Your task to perform on an android device: Empty the shopping cart on walmart.com. Add asus rog to the cart on walmart.com, then select checkout. Image 0: 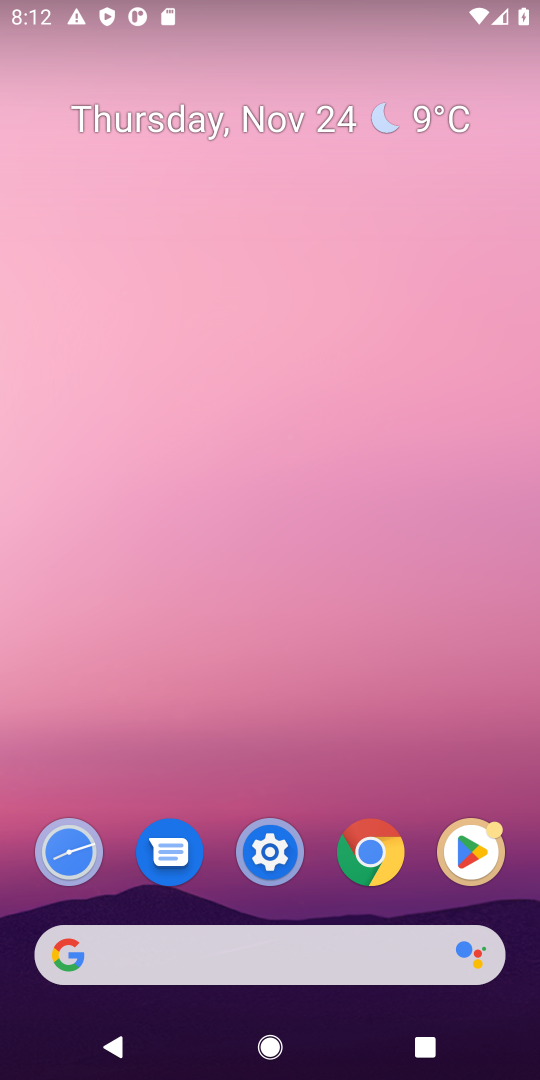
Step 0: click (227, 949)
Your task to perform on an android device: Empty the shopping cart on walmart.com. Add asus rog to the cart on walmart.com, then select checkout. Image 1: 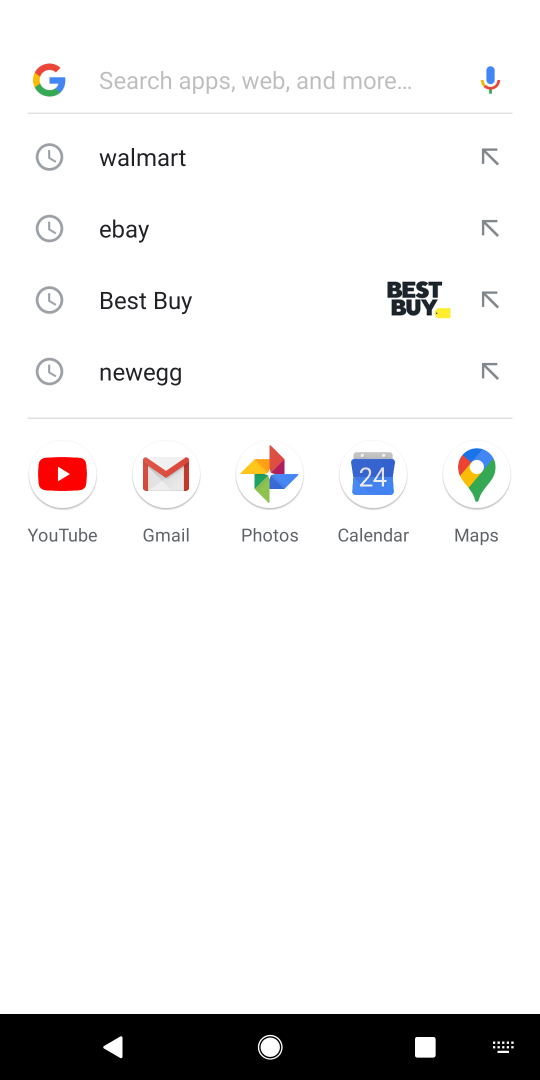
Step 1: click (181, 153)
Your task to perform on an android device: Empty the shopping cart on walmart.com. Add asus rog to the cart on walmart.com, then select checkout. Image 2: 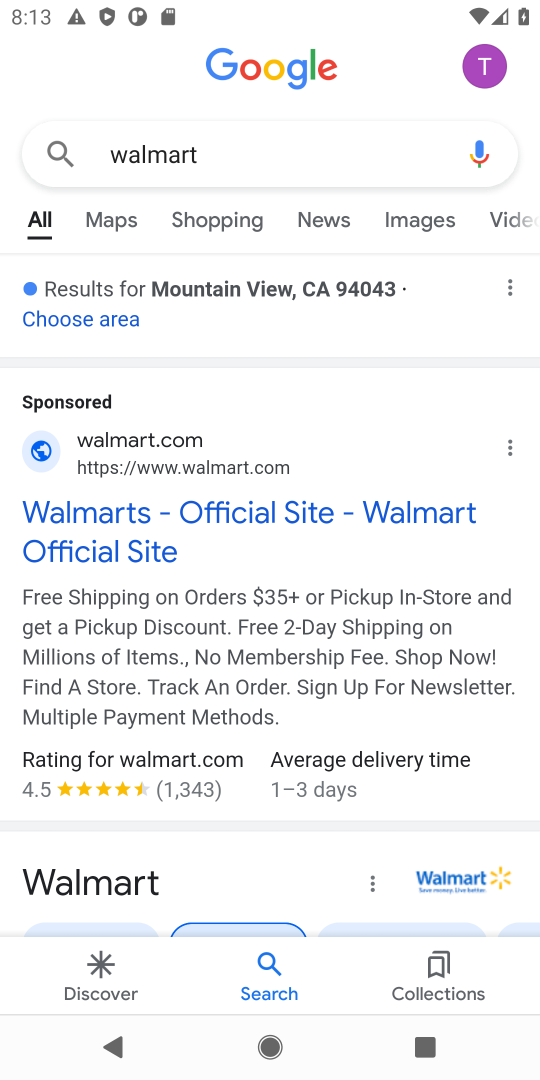
Step 2: click (137, 442)
Your task to perform on an android device: Empty the shopping cart on walmart.com. Add asus rog to the cart on walmart.com, then select checkout. Image 3: 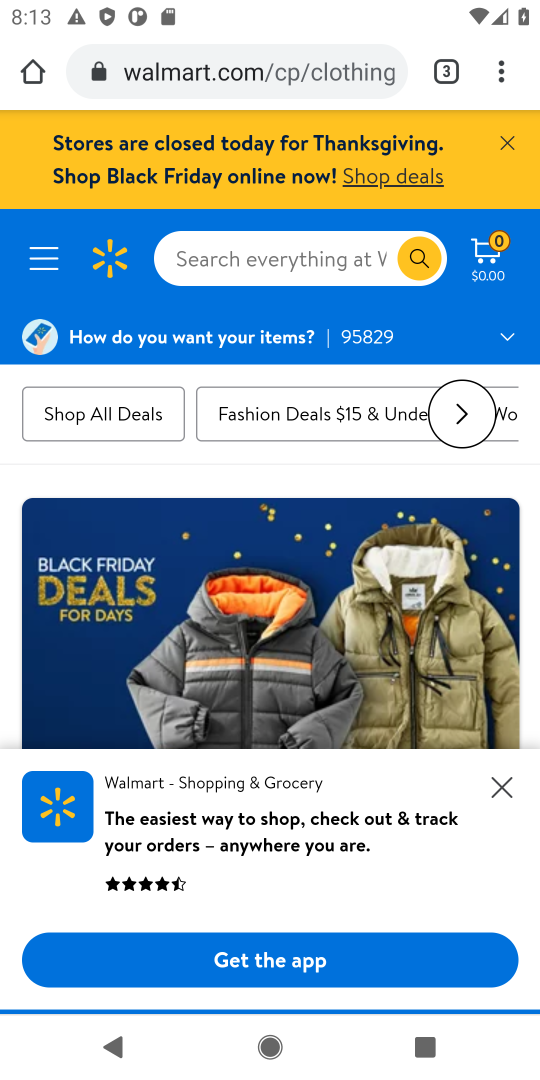
Step 3: click (493, 249)
Your task to perform on an android device: Empty the shopping cart on walmart.com. Add asus rog to the cart on walmart.com, then select checkout. Image 4: 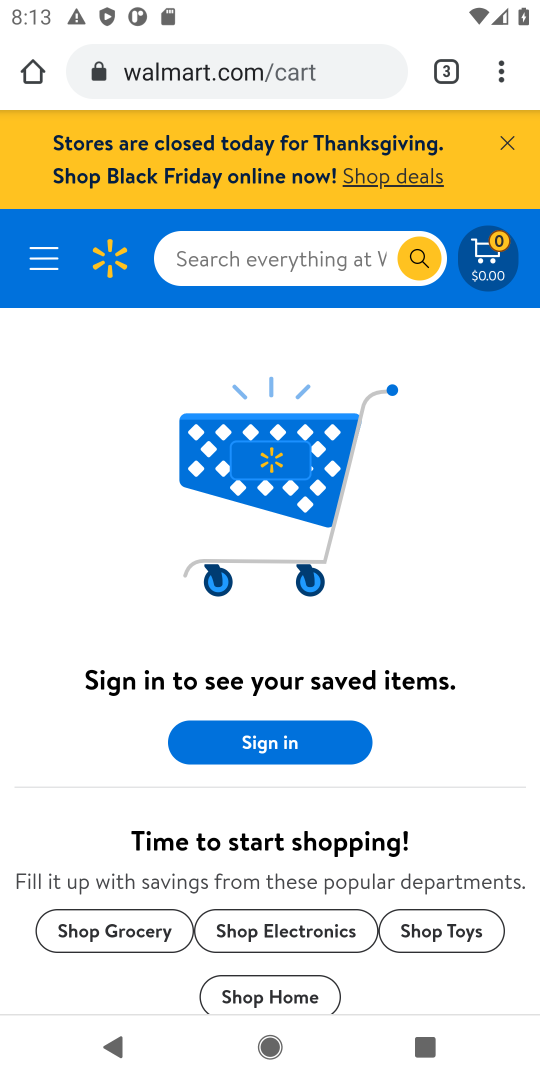
Step 4: click (296, 260)
Your task to perform on an android device: Empty the shopping cart on walmart.com. Add asus rog to the cart on walmart.com, then select checkout. Image 5: 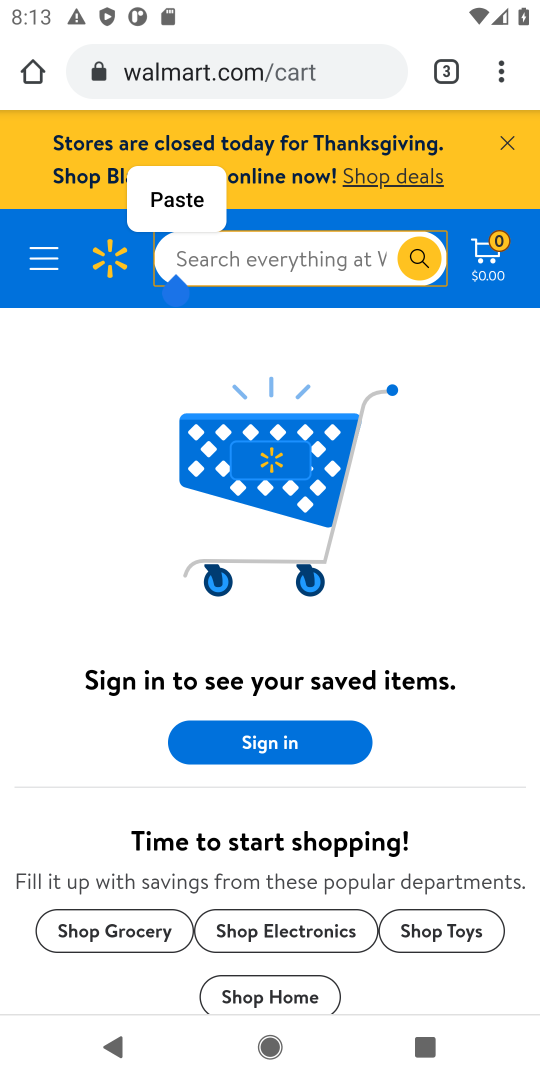
Step 5: type "asus rog"
Your task to perform on an android device: Empty the shopping cart on walmart.com. Add asus rog to the cart on walmart.com, then select checkout. Image 6: 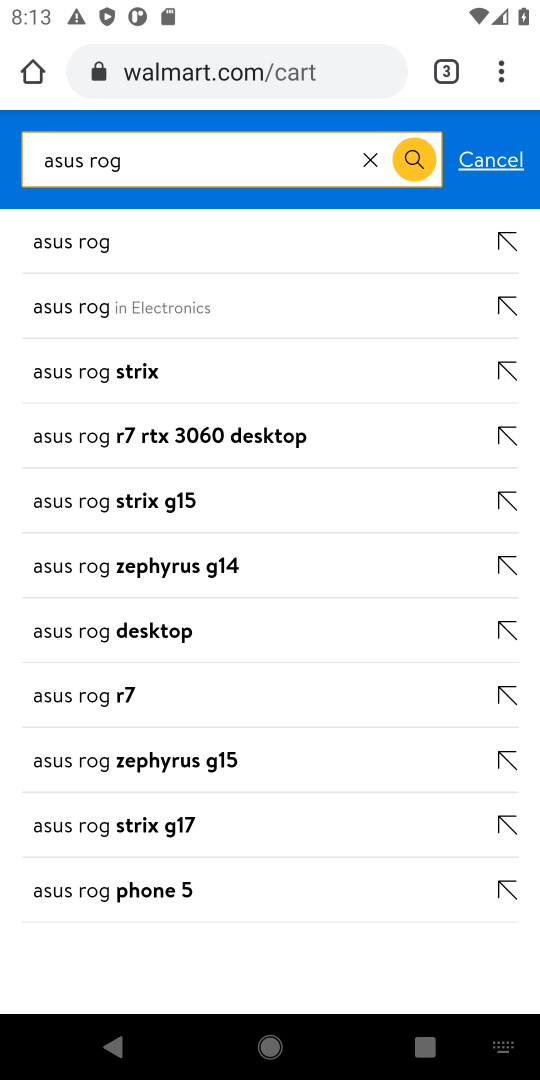
Step 6: click (91, 236)
Your task to perform on an android device: Empty the shopping cart on walmart.com. Add asus rog to the cart on walmart.com, then select checkout. Image 7: 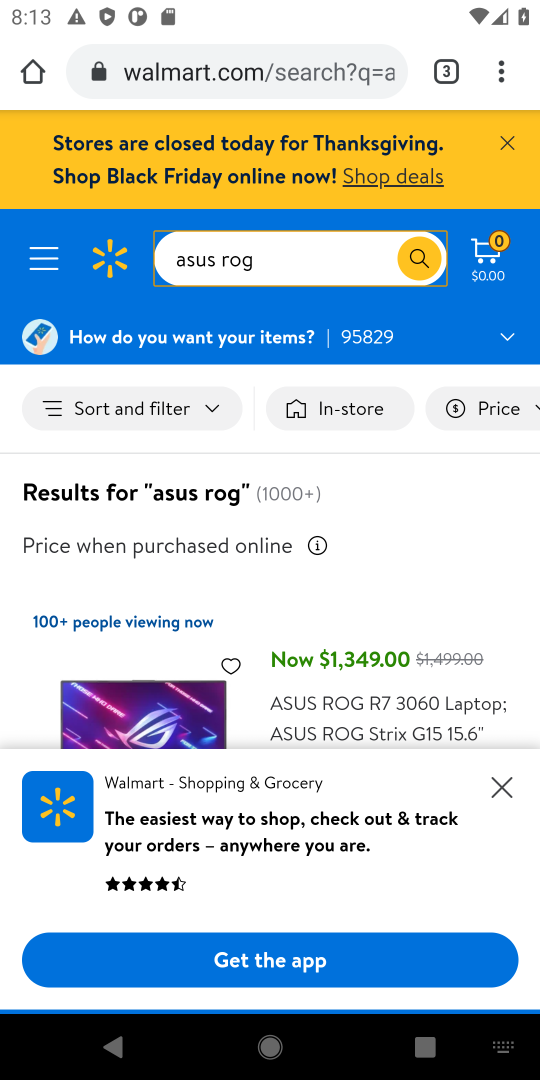
Step 7: click (486, 791)
Your task to perform on an android device: Empty the shopping cart on walmart.com. Add asus rog to the cart on walmart.com, then select checkout. Image 8: 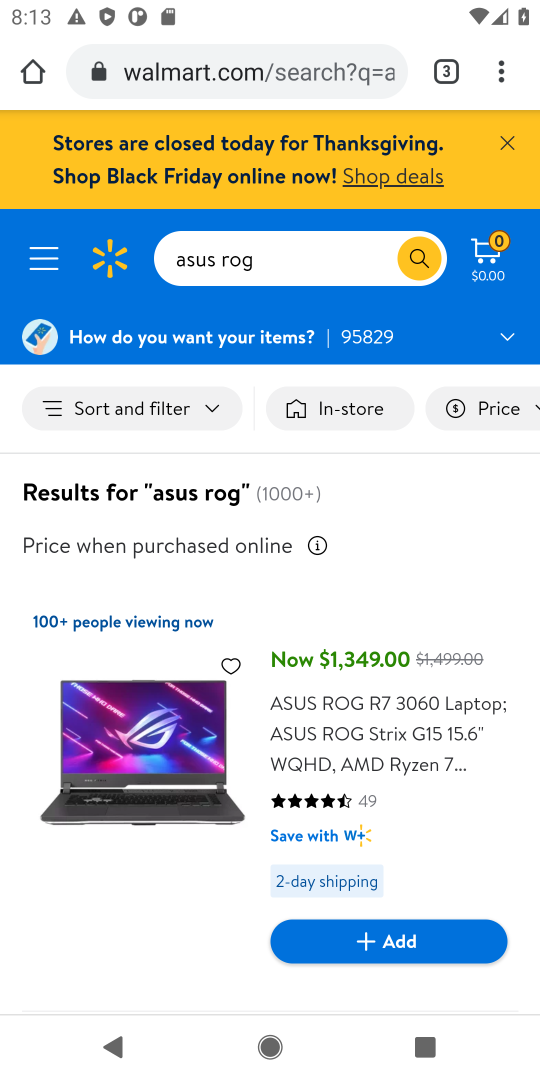
Step 8: click (398, 937)
Your task to perform on an android device: Empty the shopping cart on walmart.com. Add asus rog to the cart on walmart.com, then select checkout. Image 9: 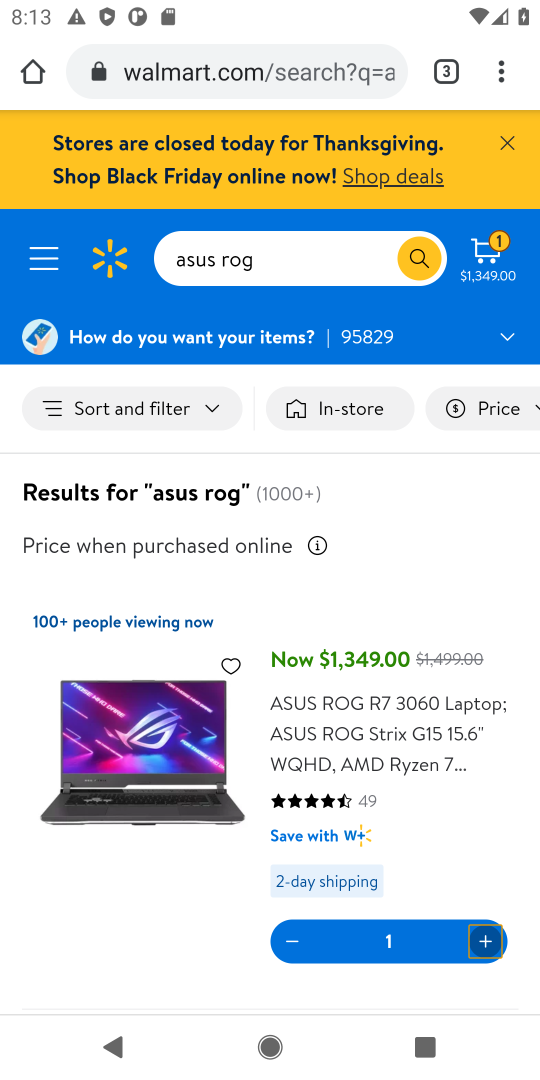
Step 9: click (494, 242)
Your task to perform on an android device: Empty the shopping cart on walmart.com. Add asus rog to the cart on walmart.com, then select checkout. Image 10: 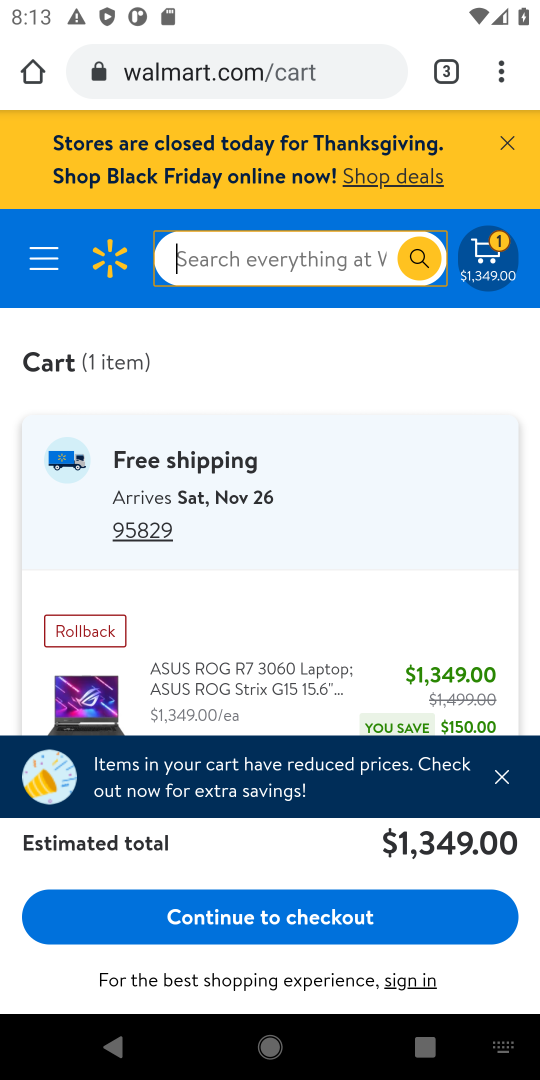
Step 10: click (285, 910)
Your task to perform on an android device: Empty the shopping cart on walmart.com. Add asus rog to the cart on walmart.com, then select checkout. Image 11: 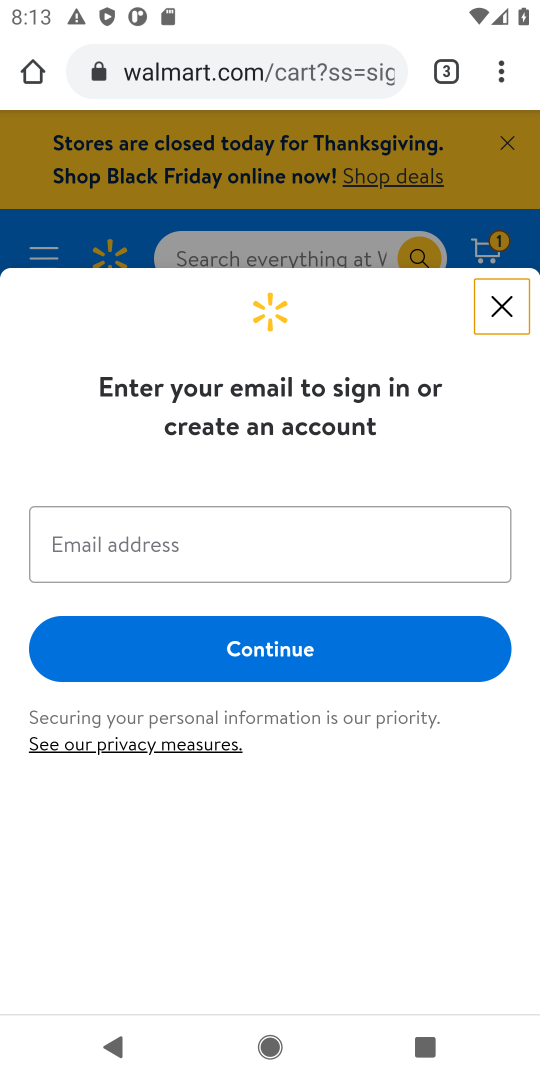
Step 11: task complete